Your task to perform on an android device: find photos in the google photos app Image 0: 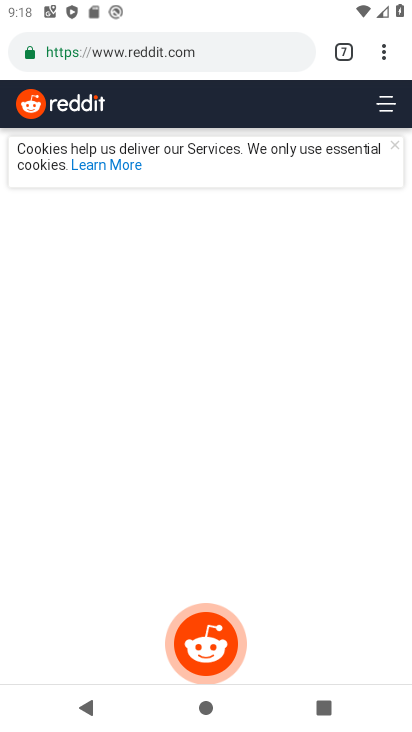
Step 0: press home button
Your task to perform on an android device: find photos in the google photos app Image 1: 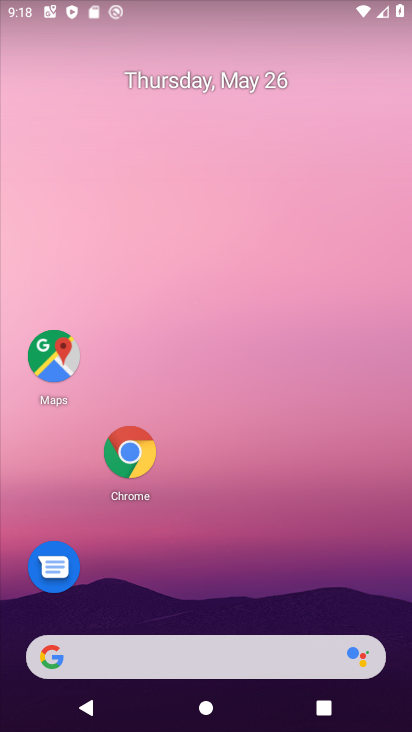
Step 1: drag from (98, 650) to (292, 11)
Your task to perform on an android device: find photos in the google photos app Image 2: 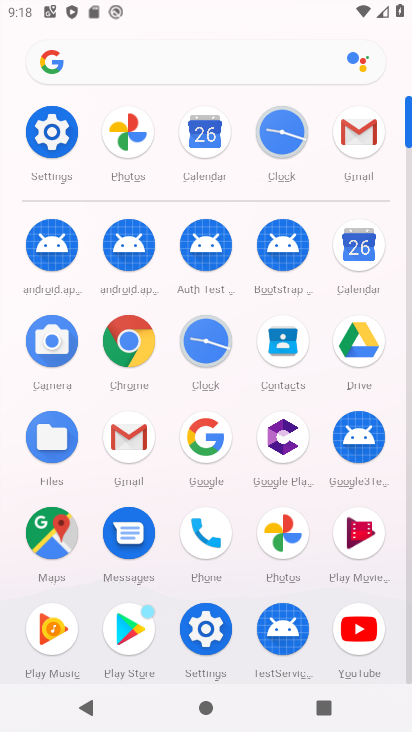
Step 2: click (279, 543)
Your task to perform on an android device: find photos in the google photos app Image 3: 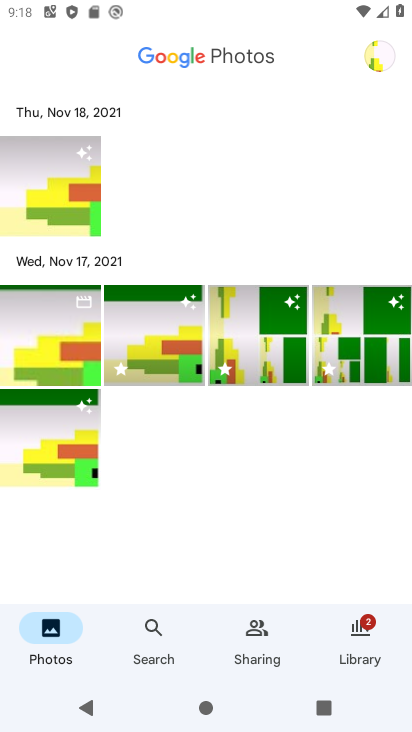
Step 3: task complete